Your task to perform on an android device: Open settings on Google Maps Image 0: 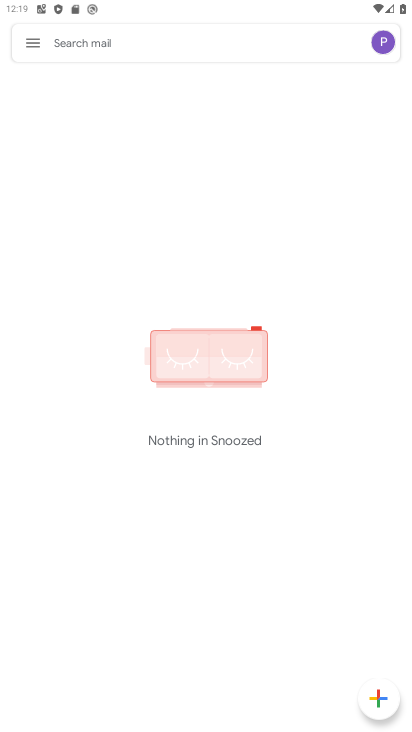
Step 0: click (18, 42)
Your task to perform on an android device: Open settings on Google Maps Image 1: 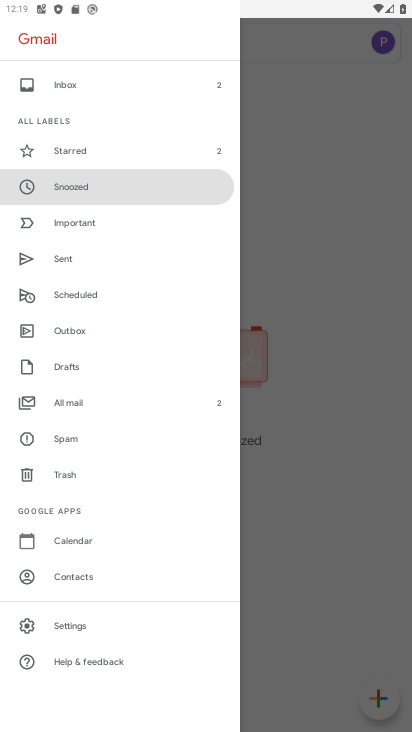
Step 1: click (84, 197)
Your task to perform on an android device: Open settings on Google Maps Image 2: 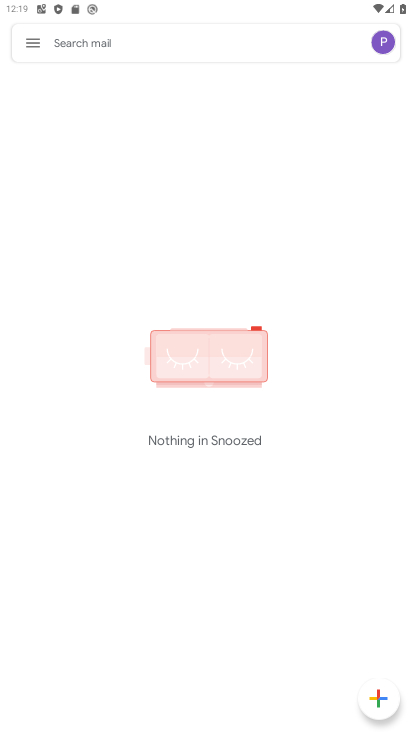
Step 2: press home button
Your task to perform on an android device: Open settings on Google Maps Image 3: 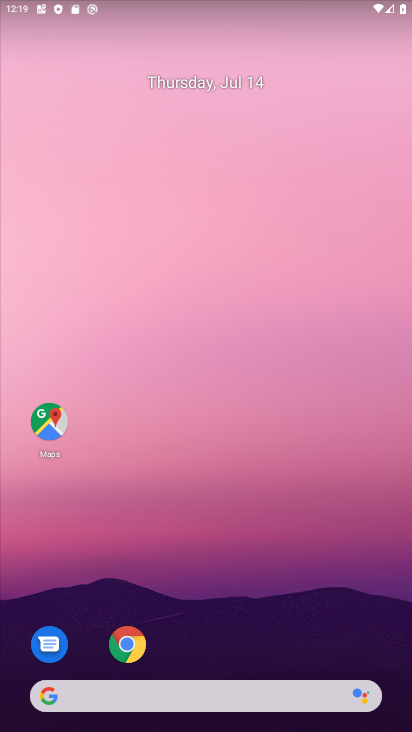
Step 3: drag from (265, 593) to (294, 5)
Your task to perform on an android device: Open settings on Google Maps Image 4: 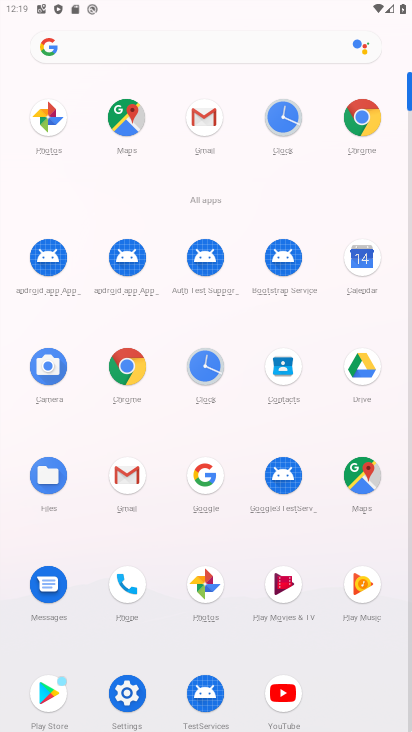
Step 4: click (348, 481)
Your task to perform on an android device: Open settings on Google Maps Image 5: 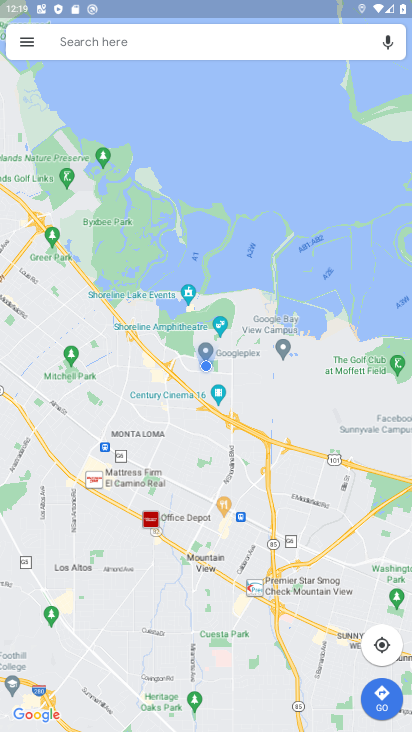
Step 5: click (37, 60)
Your task to perform on an android device: Open settings on Google Maps Image 6: 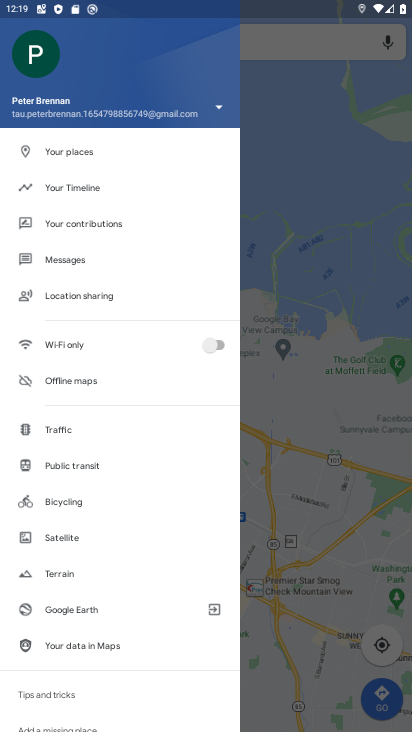
Step 6: task complete